Your task to perform on an android device: Search for pizza restaurants on Maps Image 0: 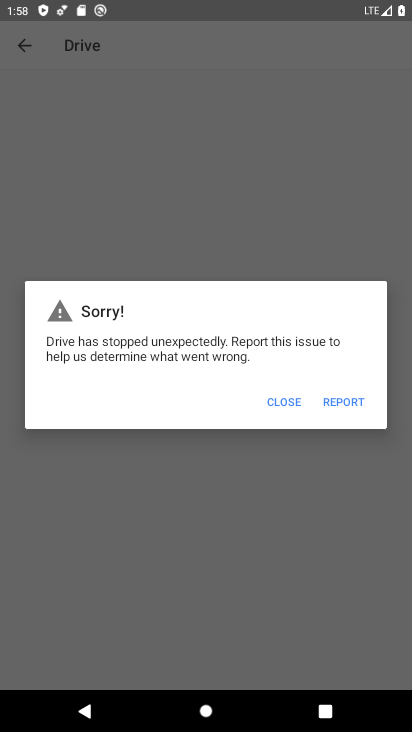
Step 0: press home button
Your task to perform on an android device: Search for pizza restaurants on Maps Image 1: 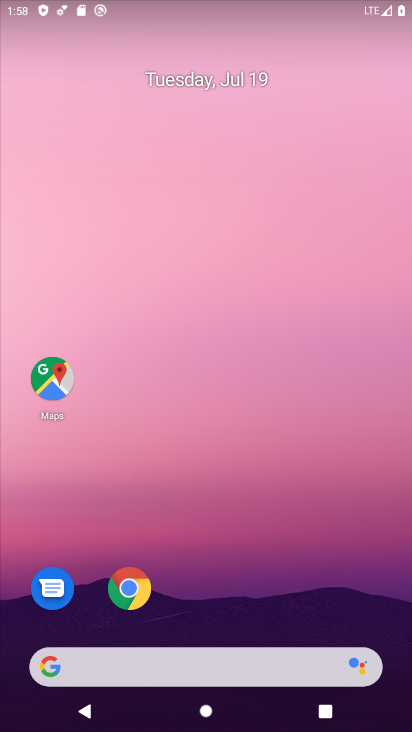
Step 1: click (49, 368)
Your task to perform on an android device: Search for pizza restaurants on Maps Image 2: 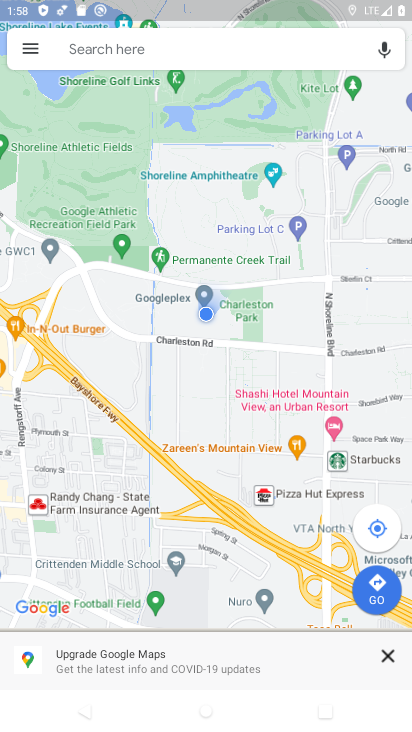
Step 2: click (155, 46)
Your task to perform on an android device: Search for pizza restaurants on Maps Image 3: 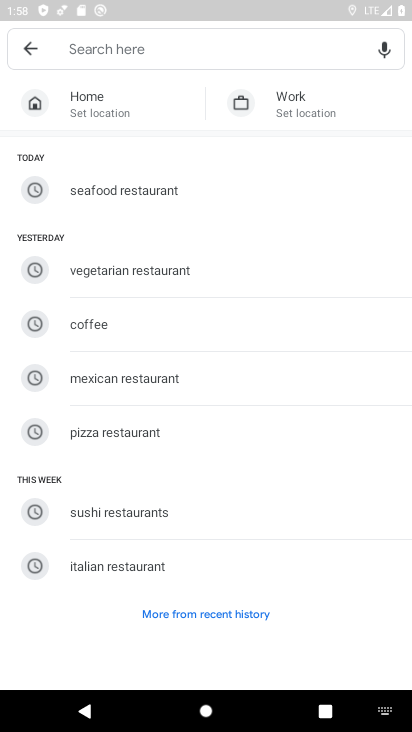
Step 3: click (125, 430)
Your task to perform on an android device: Search for pizza restaurants on Maps Image 4: 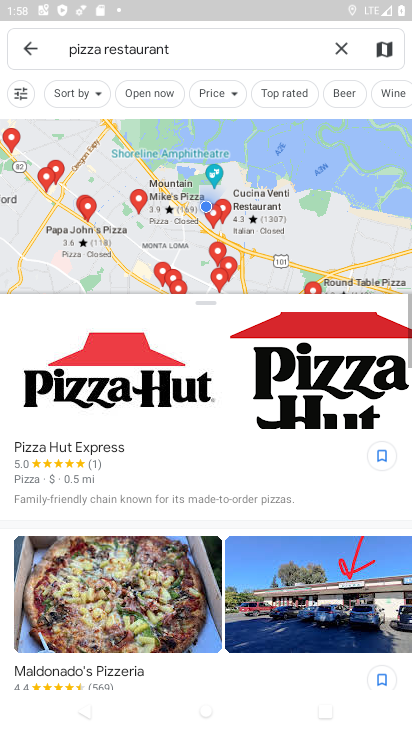
Step 4: task complete